Your task to perform on an android device: Open Reddit.com Image 0: 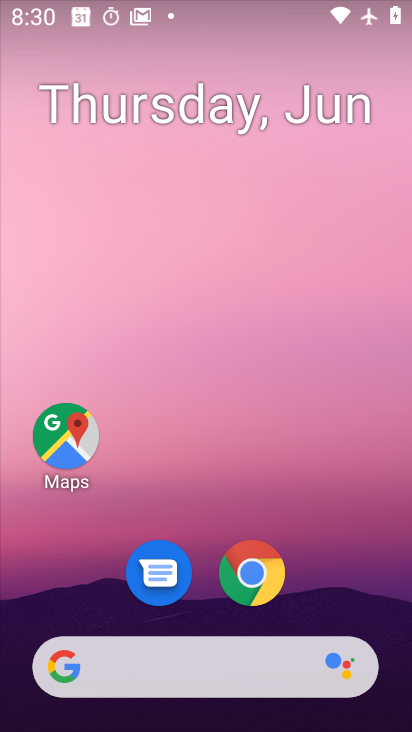
Step 0: click (280, 581)
Your task to perform on an android device: Open Reddit.com Image 1: 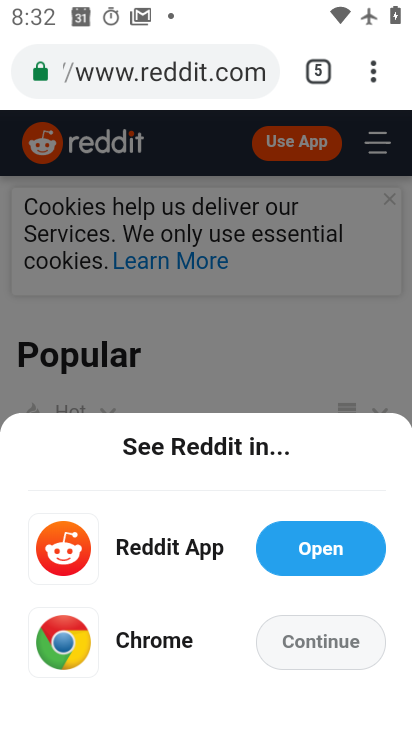
Step 1: task complete